Your task to perform on an android device: delete location history Image 0: 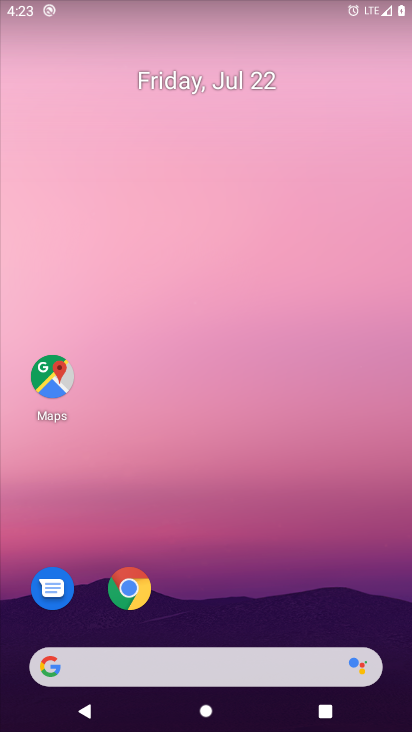
Step 0: drag from (306, 554) to (313, 70)
Your task to perform on an android device: delete location history Image 1: 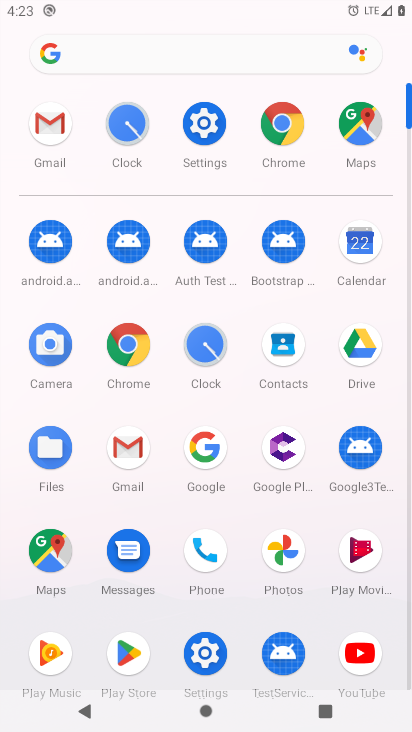
Step 1: drag from (199, 640) to (410, 522)
Your task to perform on an android device: delete location history Image 2: 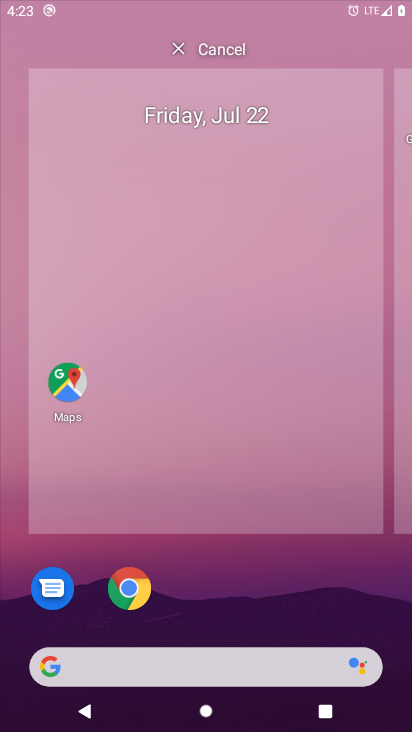
Step 2: click (263, 573)
Your task to perform on an android device: delete location history Image 3: 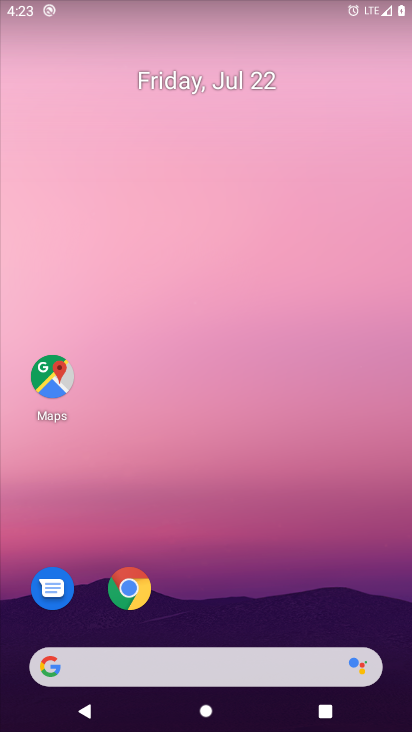
Step 3: drag from (263, 573) to (314, 167)
Your task to perform on an android device: delete location history Image 4: 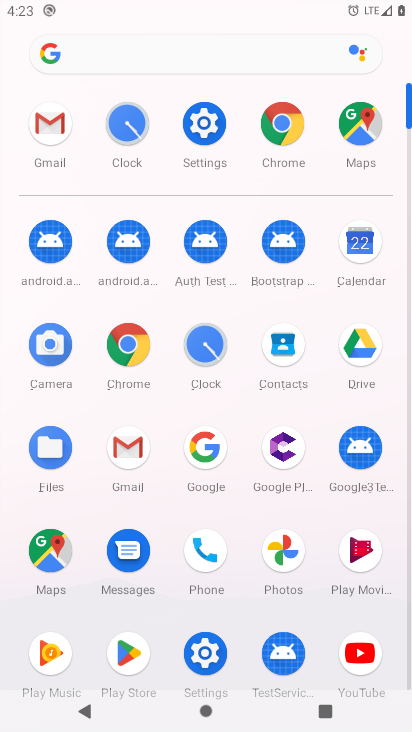
Step 4: click (41, 545)
Your task to perform on an android device: delete location history Image 5: 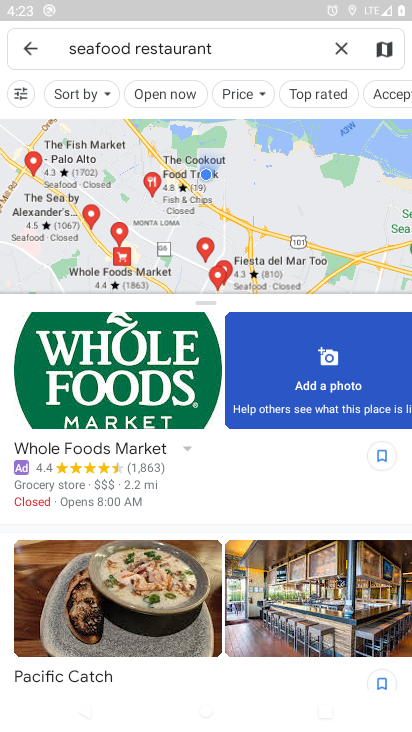
Step 5: click (338, 47)
Your task to perform on an android device: delete location history Image 6: 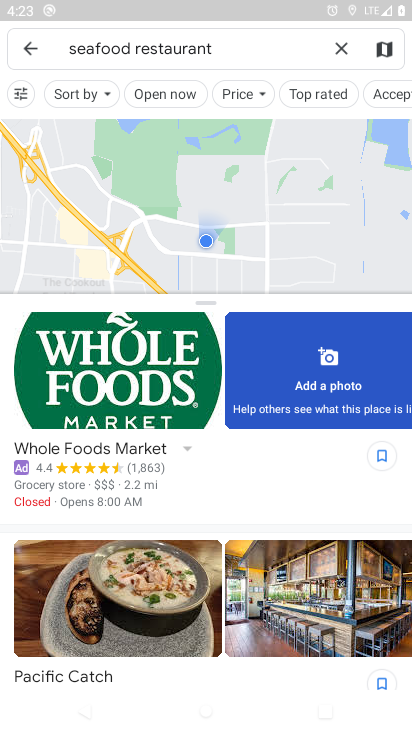
Step 6: click (29, 45)
Your task to perform on an android device: delete location history Image 7: 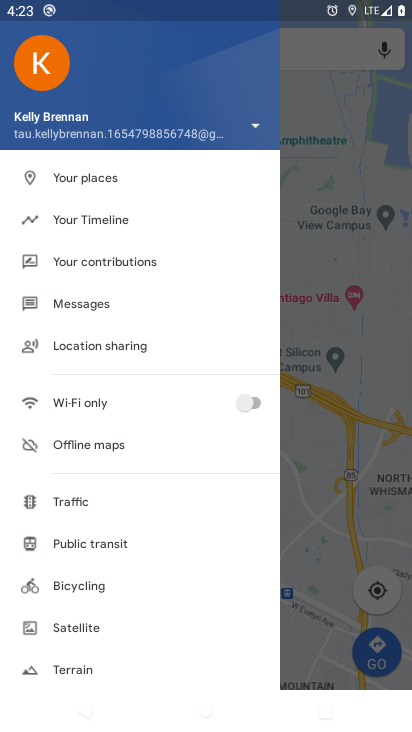
Step 7: click (96, 216)
Your task to perform on an android device: delete location history Image 8: 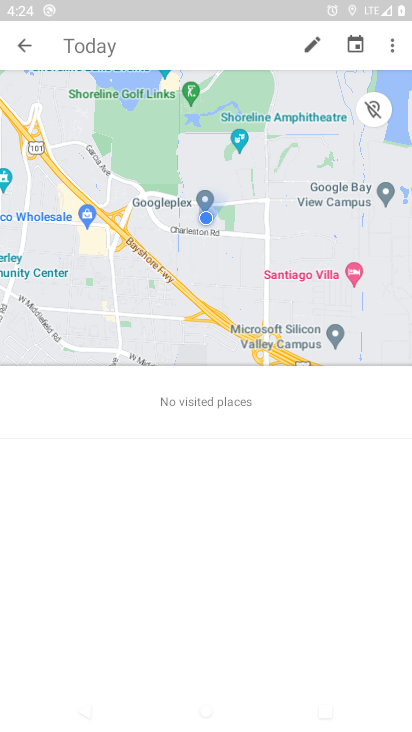
Step 8: click (398, 44)
Your task to perform on an android device: delete location history Image 9: 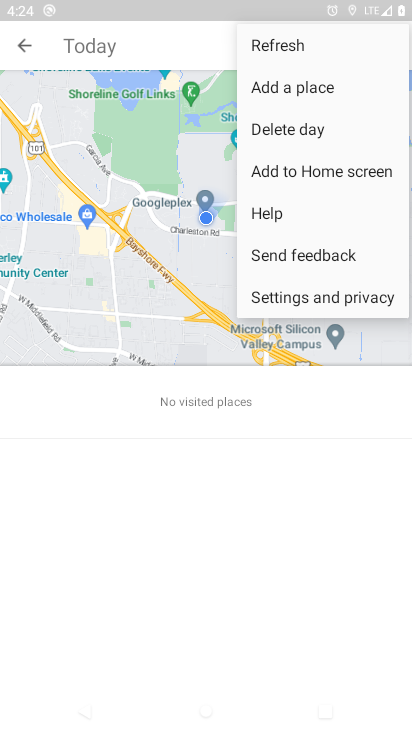
Step 9: click (323, 289)
Your task to perform on an android device: delete location history Image 10: 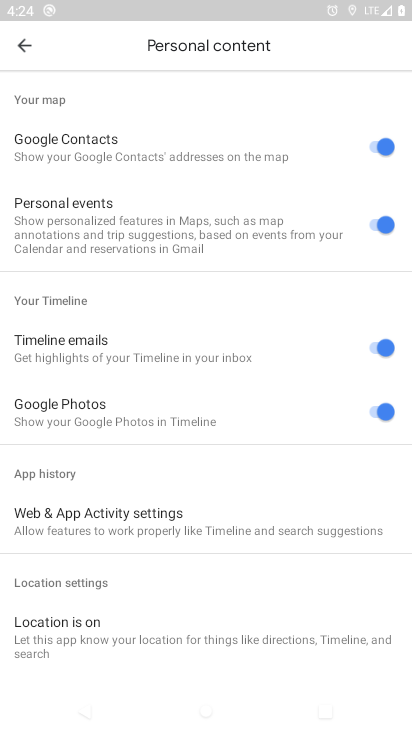
Step 10: drag from (168, 621) to (125, 244)
Your task to perform on an android device: delete location history Image 11: 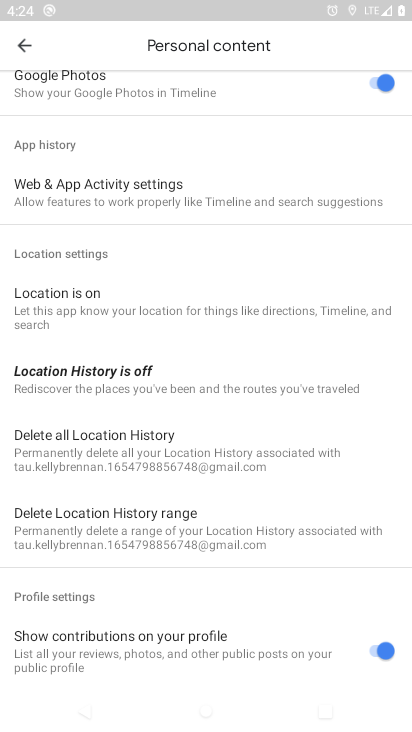
Step 11: click (60, 439)
Your task to perform on an android device: delete location history Image 12: 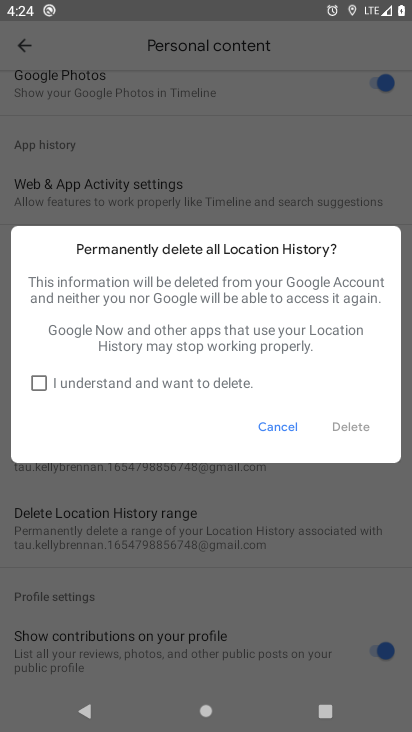
Step 12: click (44, 378)
Your task to perform on an android device: delete location history Image 13: 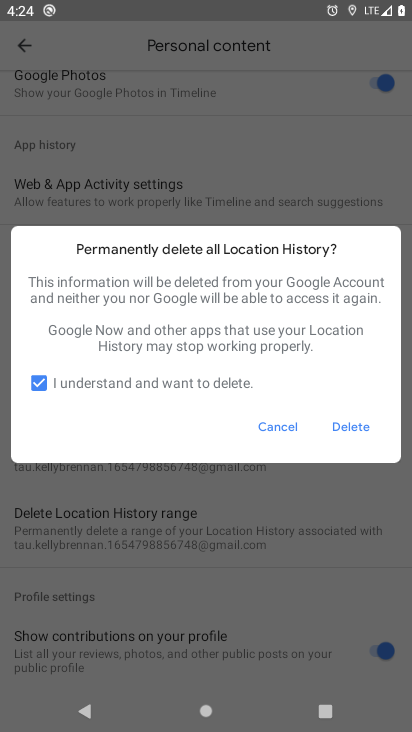
Step 13: click (349, 427)
Your task to perform on an android device: delete location history Image 14: 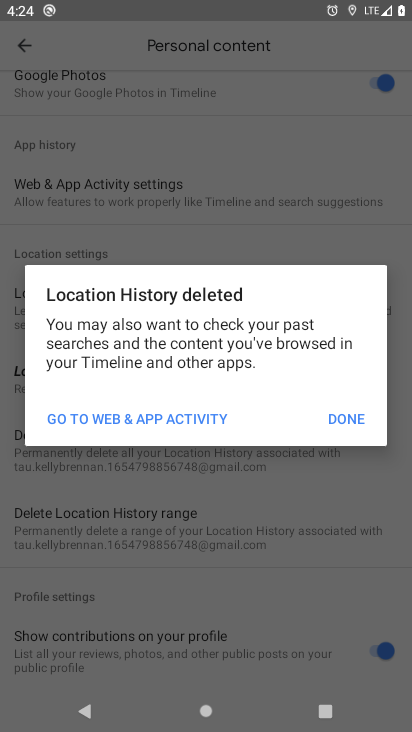
Step 14: click (351, 415)
Your task to perform on an android device: delete location history Image 15: 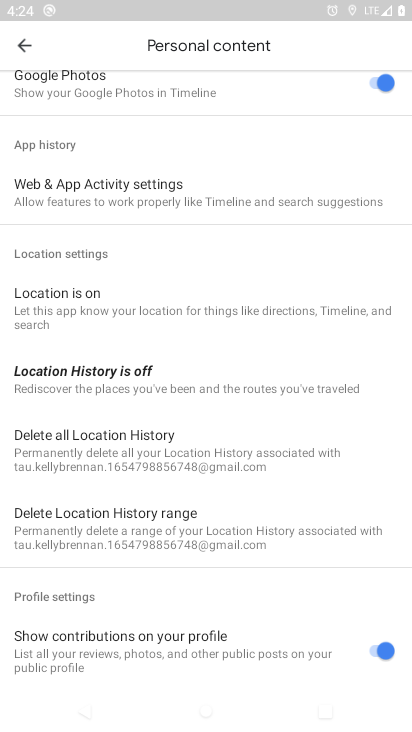
Step 15: task complete